Your task to perform on an android device: turn off wifi Image 0: 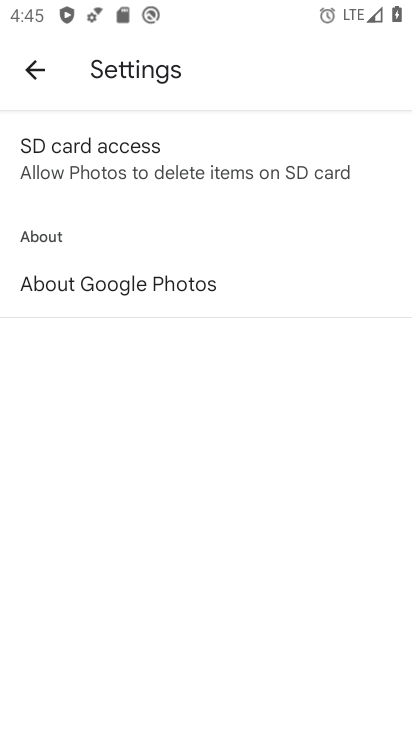
Step 0: press home button
Your task to perform on an android device: turn off wifi Image 1: 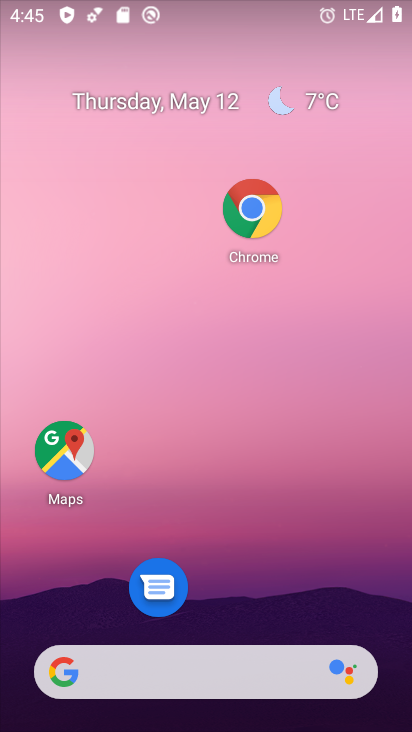
Step 1: drag from (270, 561) to (286, 175)
Your task to perform on an android device: turn off wifi Image 2: 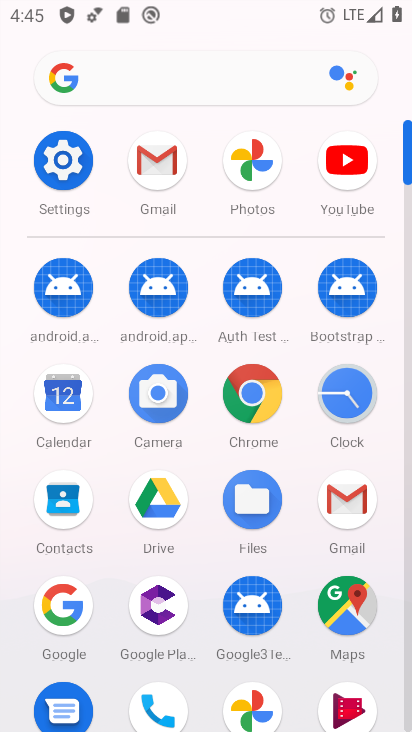
Step 2: click (62, 208)
Your task to perform on an android device: turn off wifi Image 3: 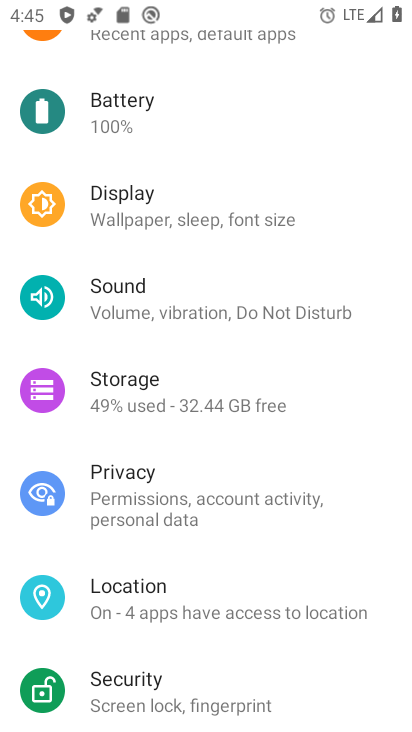
Step 3: drag from (239, 174) to (145, 610)
Your task to perform on an android device: turn off wifi Image 4: 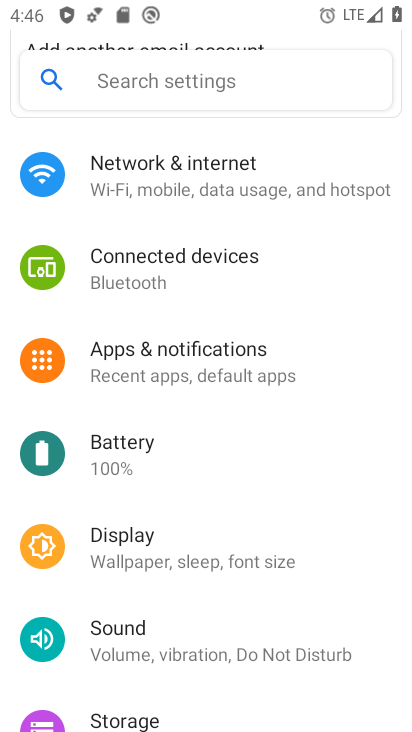
Step 4: click (181, 176)
Your task to perform on an android device: turn off wifi Image 5: 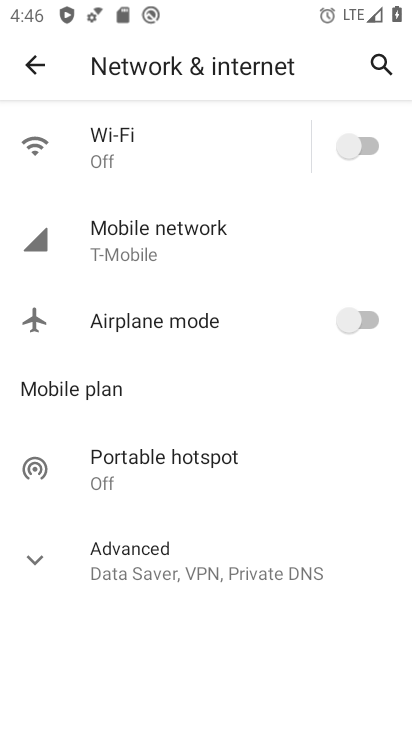
Step 5: task complete